Your task to perform on an android device: remove spam from my inbox in the gmail app Image 0: 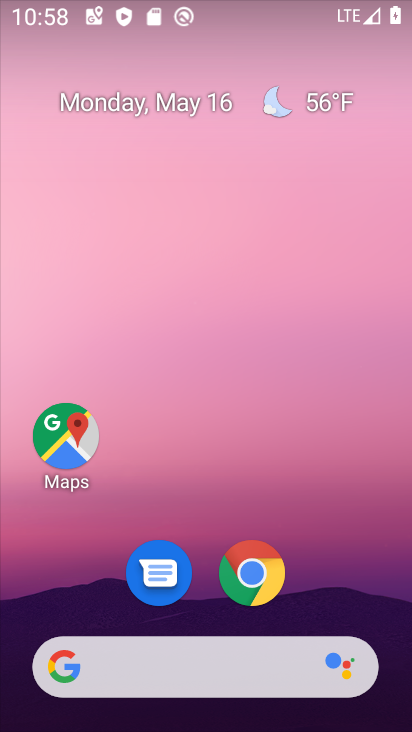
Step 0: drag from (243, 714) to (241, 170)
Your task to perform on an android device: remove spam from my inbox in the gmail app Image 1: 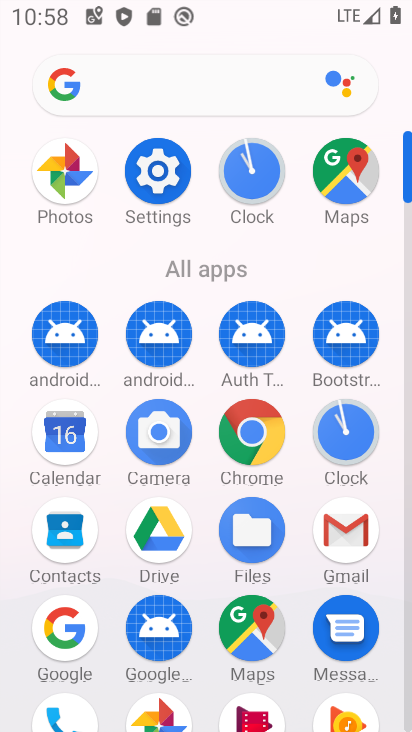
Step 1: click (352, 521)
Your task to perform on an android device: remove spam from my inbox in the gmail app Image 2: 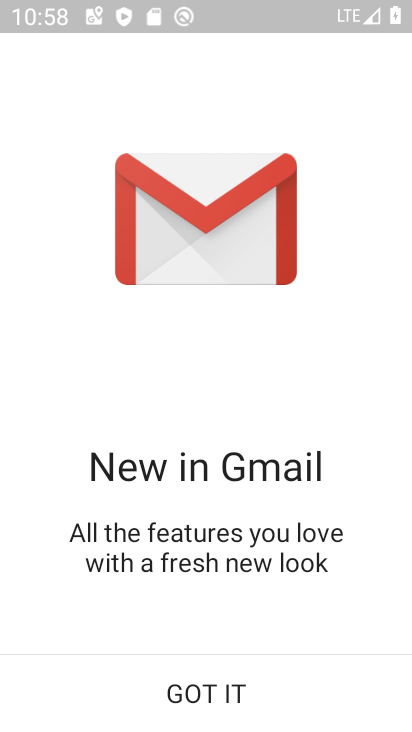
Step 2: click (220, 695)
Your task to perform on an android device: remove spam from my inbox in the gmail app Image 3: 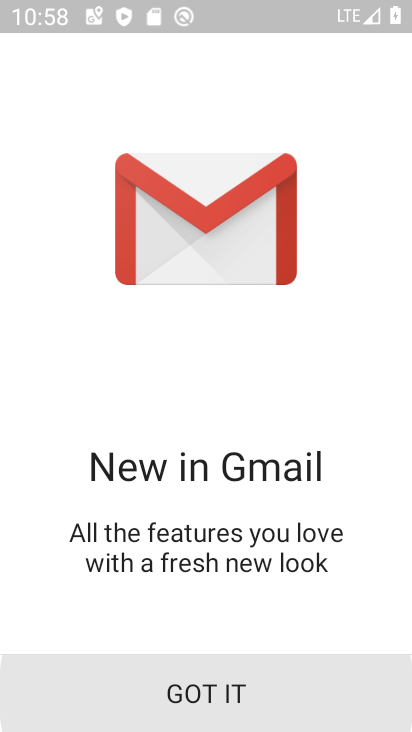
Step 3: click (220, 695)
Your task to perform on an android device: remove spam from my inbox in the gmail app Image 4: 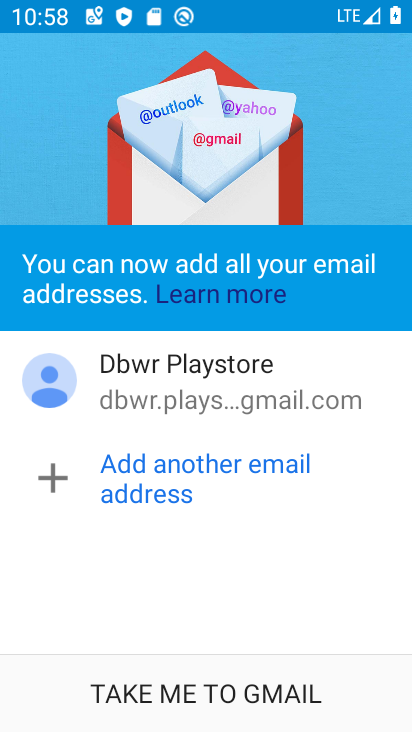
Step 4: click (220, 695)
Your task to perform on an android device: remove spam from my inbox in the gmail app Image 5: 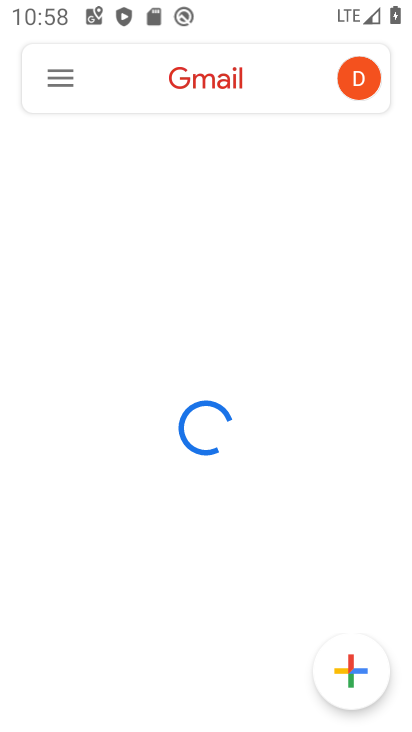
Step 5: click (50, 71)
Your task to perform on an android device: remove spam from my inbox in the gmail app Image 6: 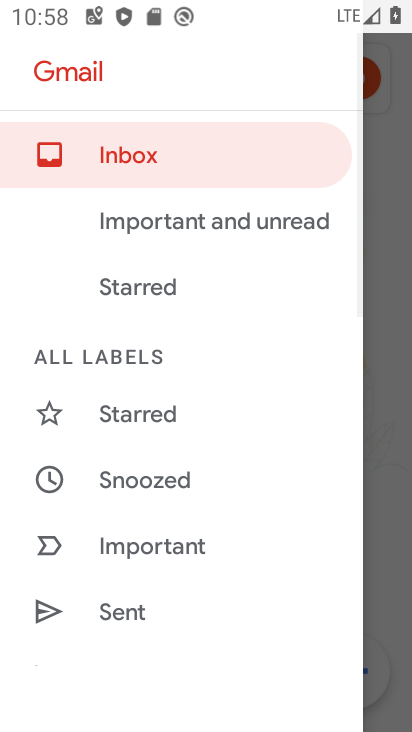
Step 6: drag from (175, 632) to (295, 87)
Your task to perform on an android device: remove spam from my inbox in the gmail app Image 7: 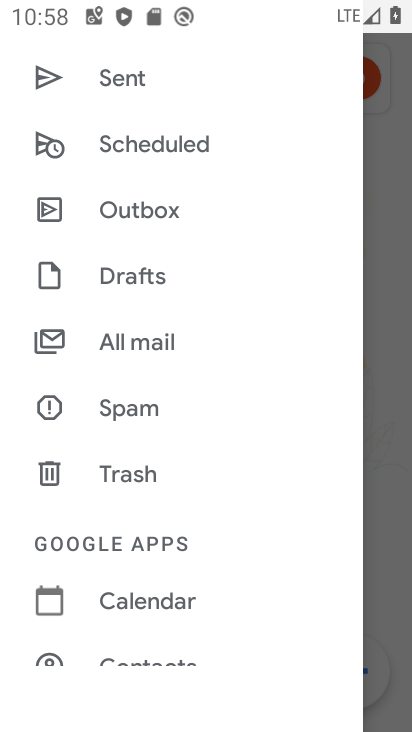
Step 7: click (159, 398)
Your task to perform on an android device: remove spam from my inbox in the gmail app Image 8: 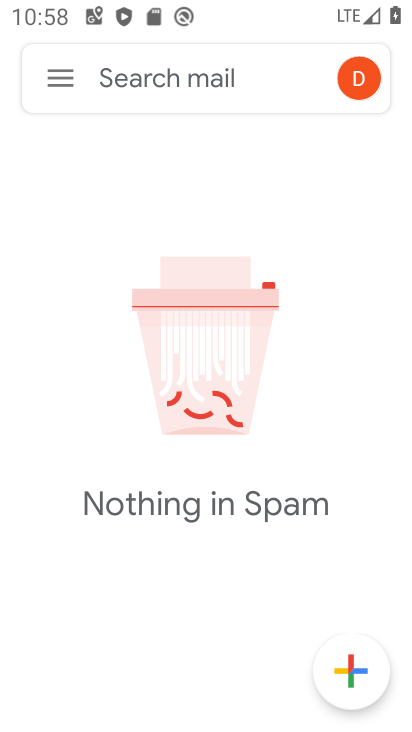
Step 8: task complete